Your task to perform on an android device: toggle javascript in the chrome app Image 0: 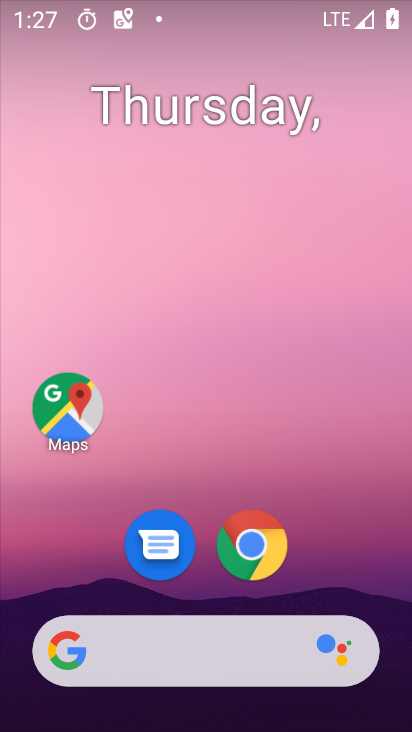
Step 0: drag from (325, 602) to (259, 107)
Your task to perform on an android device: toggle javascript in the chrome app Image 1: 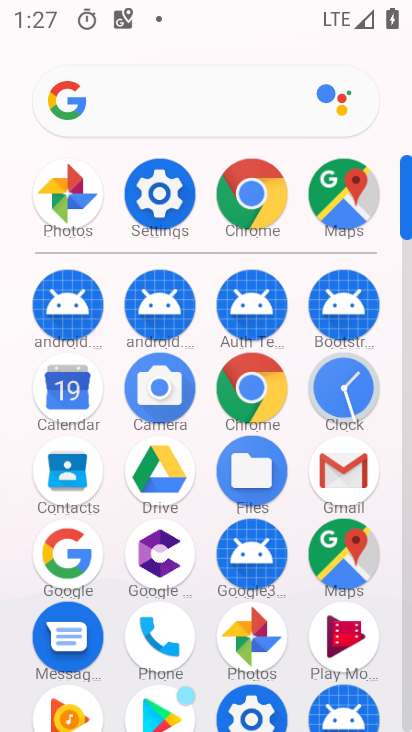
Step 1: click (240, 381)
Your task to perform on an android device: toggle javascript in the chrome app Image 2: 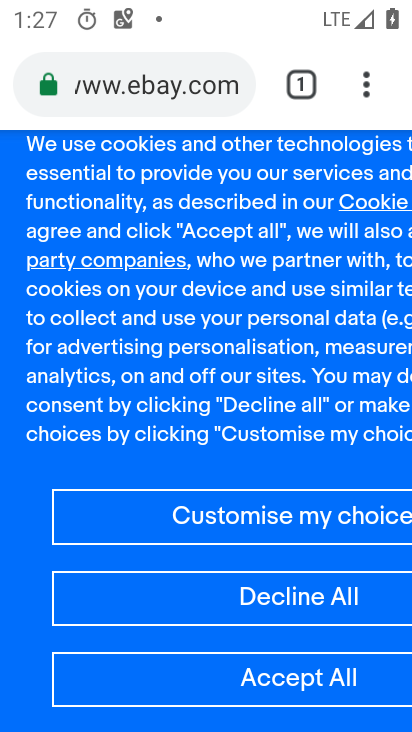
Step 2: drag from (362, 78) to (125, 609)
Your task to perform on an android device: toggle javascript in the chrome app Image 3: 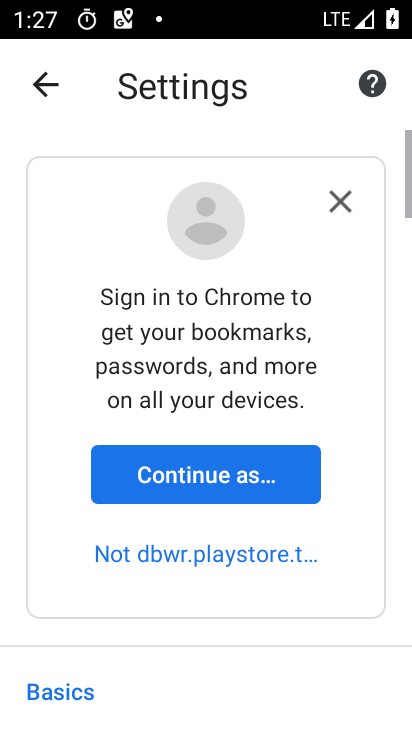
Step 3: drag from (155, 663) to (160, 40)
Your task to perform on an android device: toggle javascript in the chrome app Image 4: 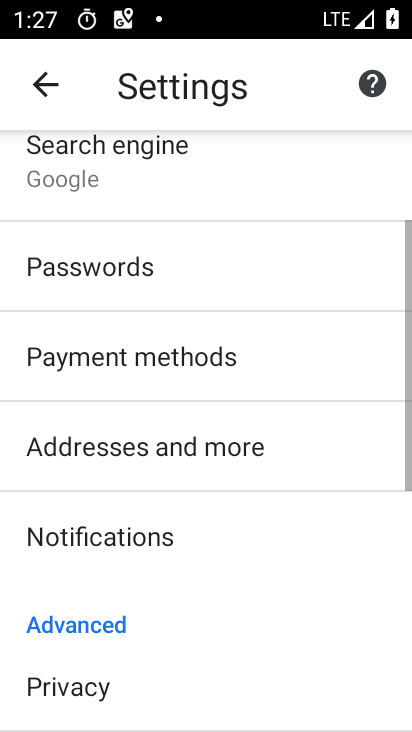
Step 4: drag from (154, 629) to (133, 32)
Your task to perform on an android device: toggle javascript in the chrome app Image 5: 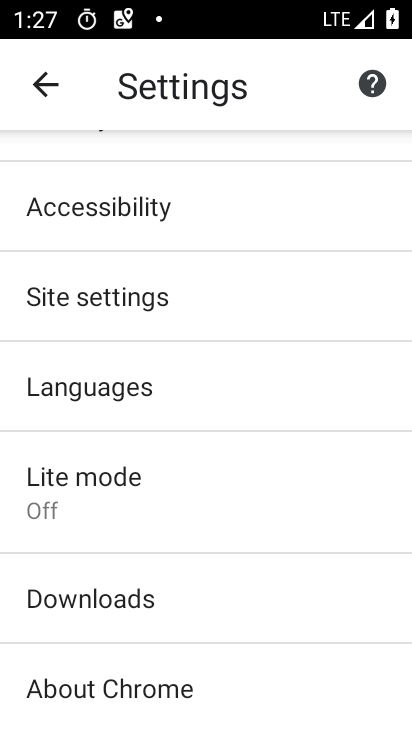
Step 5: click (151, 300)
Your task to perform on an android device: toggle javascript in the chrome app Image 6: 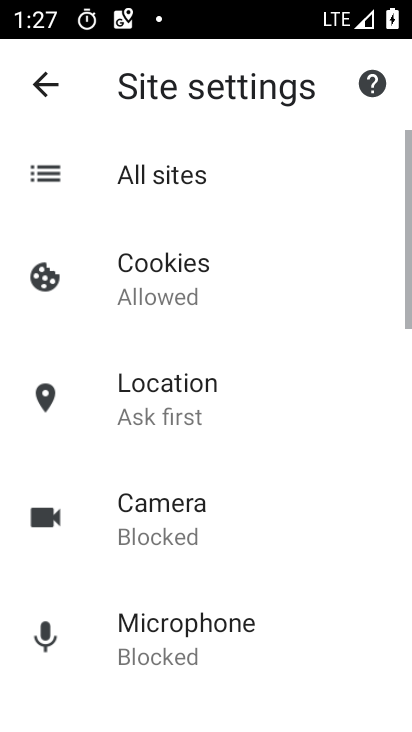
Step 6: drag from (271, 620) to (236, 70)
Your task to perform on an android device: toggle javascript in the chrome app Image 7: 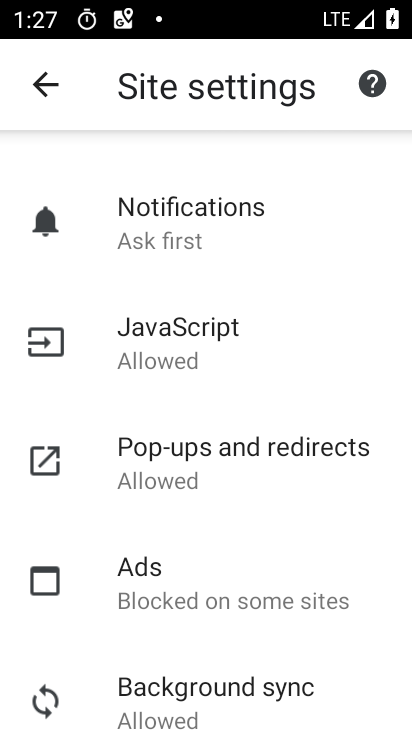
Step 7: click (216, 352)
Your task to perform on an android device: toggle javascript in the chrome app Image 8: 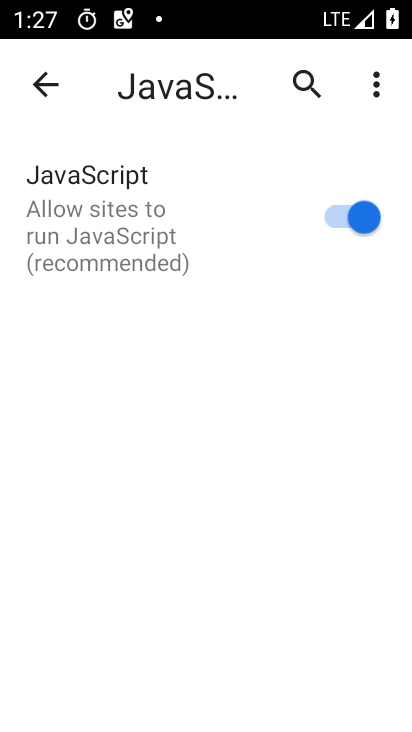
Step 8: click (331, 220)
Your task to perform on an android device: toggle javascript in the chrome app Image 9: 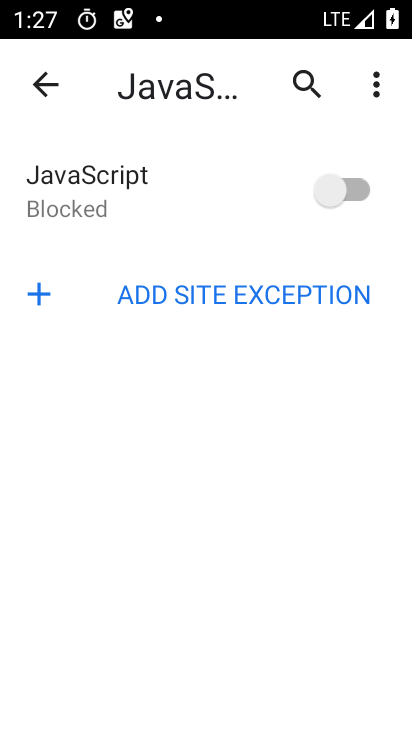
Step 9: task complete